Your task to perform on an android device: turn on airplane mode Image 0: 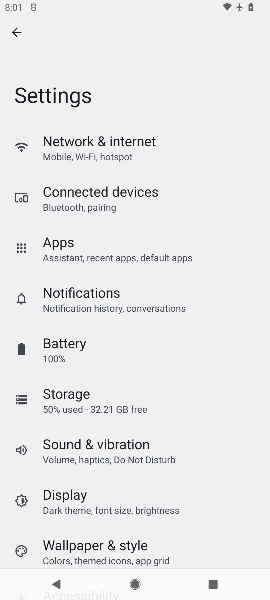
Step 0: press home button
Your task to perform on an android device: turn on airplane mode Image 1: 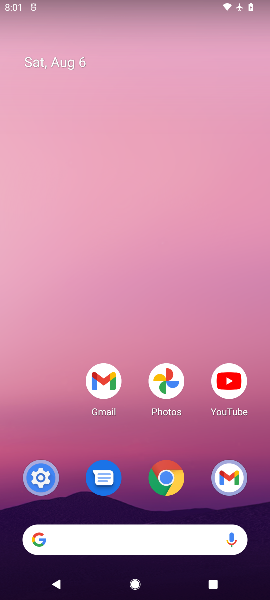
Step 1: press home button
Your task to perform on an android device: turn on airplane mode Image 2: 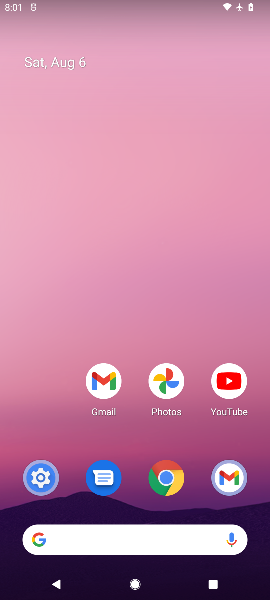
Step 2: click (36, 482)
Your task to perform on an android device: turn on airplane mode Image 3: 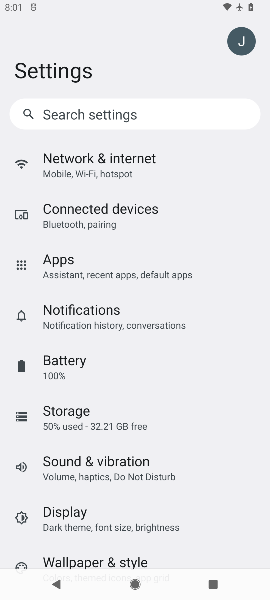
Step 3: click (101, 163)
Your task to perform on an android device: turn on airplane mode Image 4: 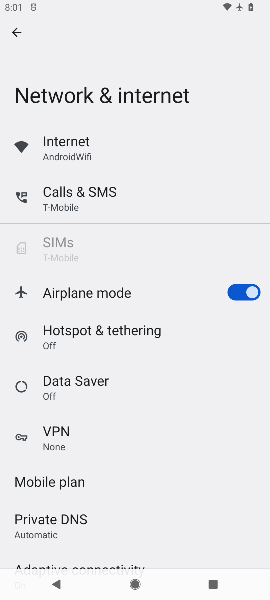
Step 4: click (66, 146)
Your task to perform on an android device: turn on airplane mode Image 5: 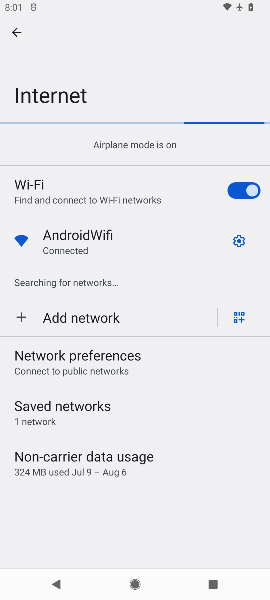
Step 5: click (12, 25)
Your task to perform on an android device: turn on airplane mode Image 6: 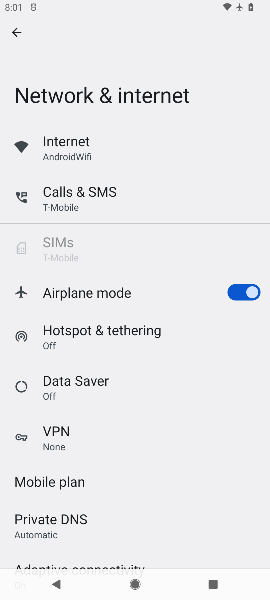
Step 6: task complete